Your task to perform on an android device: change the clock display to show seconds Image 0: 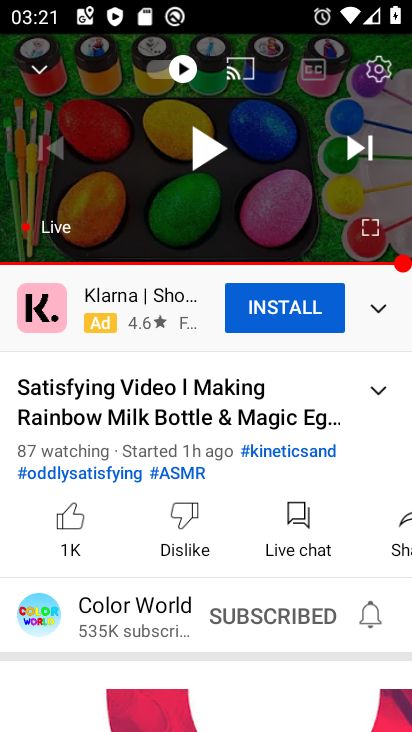
Step 0: press home button
Your task to perform on an android device: change the clock display to show seconds Image 1: 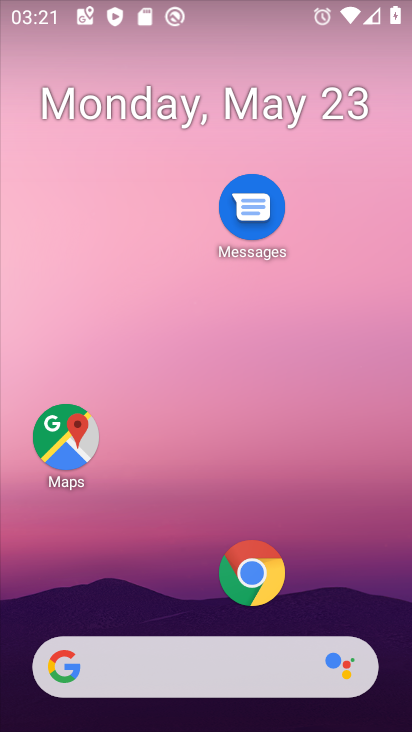
Step 1: drag from (209, 727) to (309, 6)
Your task to perform on an android device: change the clock display to show seconds Image 2: 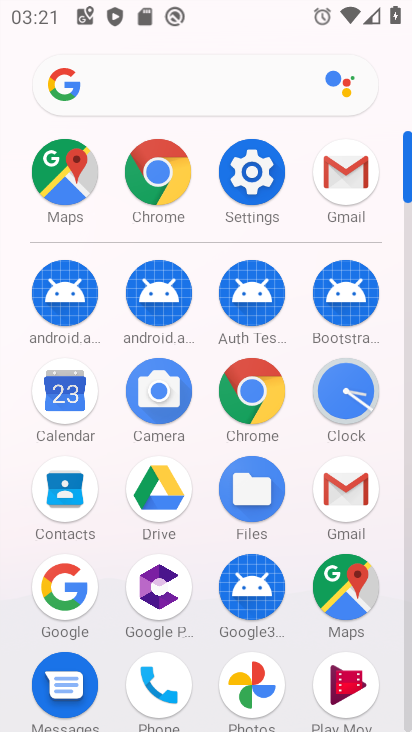
Step 2: click (329, 383)
Your task to perform on an android device: change the clock display to show seconds Image 3: 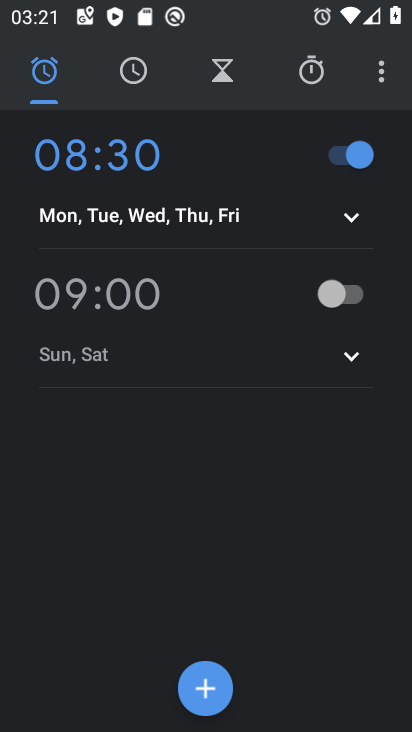
Step 3: click (370, 81)
Your task to perform on an android device: change the clock display to show seconds Image 4: 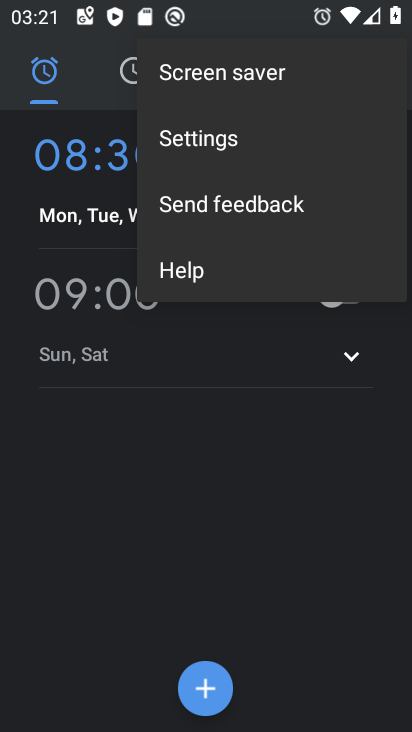
Step 4: click (248, 148)
Your task to perform on an android device: change the clock display to show seconds Image 5: 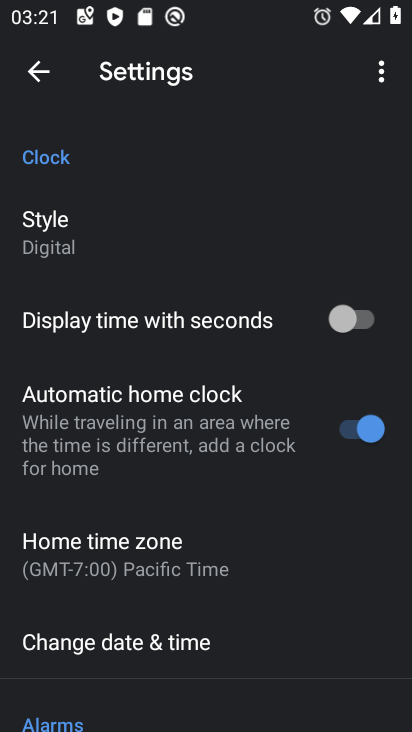
Step 5: click (365, 318)
Your task to perform on an android device: change the clock display to show seconds Image 6: 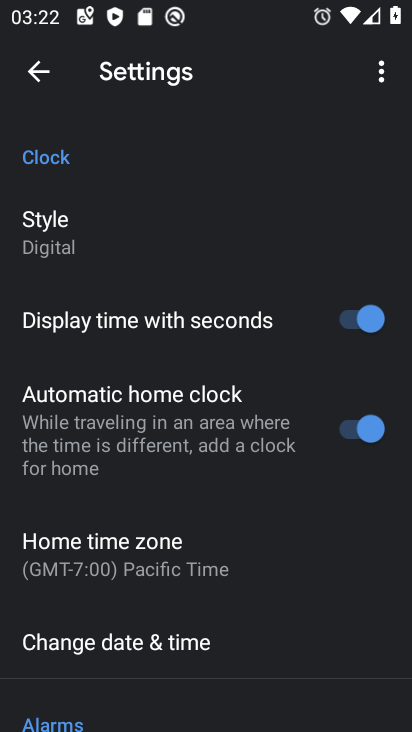
Step 6: task complete